Your task to perform on an android device: Open Youtube and go to the subscriptions tab Image 0: 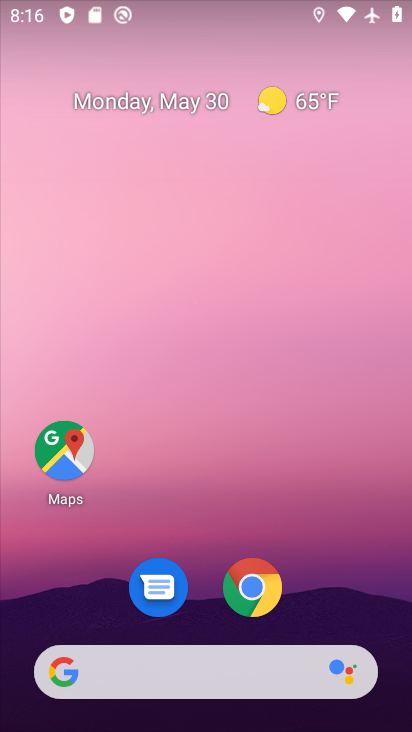
Step 0: press home button
Your task to perform on an android device: Open Youtube and go to the subscriptions tab Image 1: 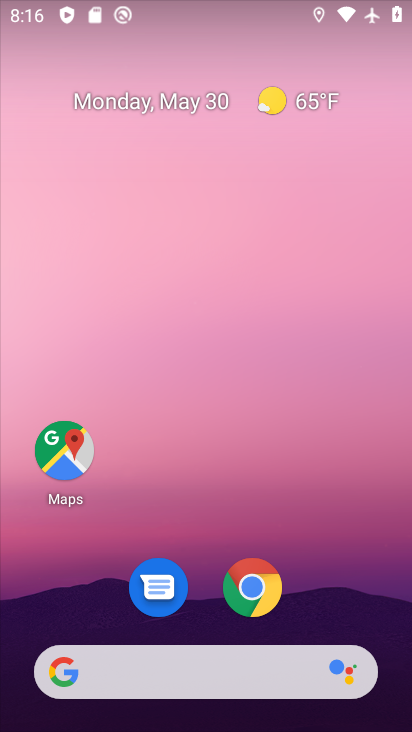
Step 1: drag from (167, 661) to (275, 256)
Your task to perform on an android device: Open Youtube and go to the subscriptions tab Image 2: 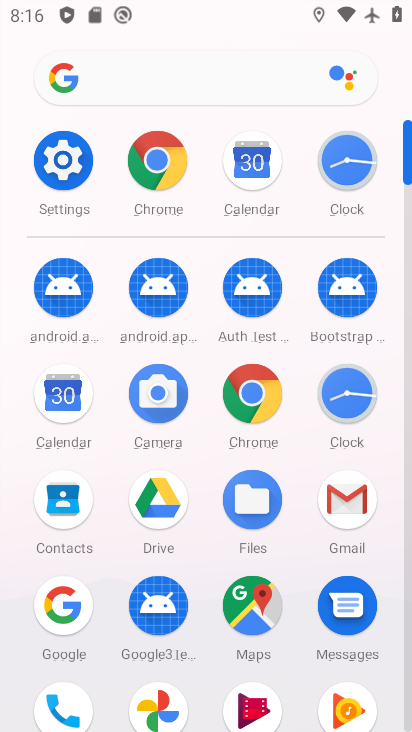
Step 2: drag from (297, 656) to (366, 189)
Your task to perform on an android device: Open Youtube and go to the subscriptions tab Image 3: 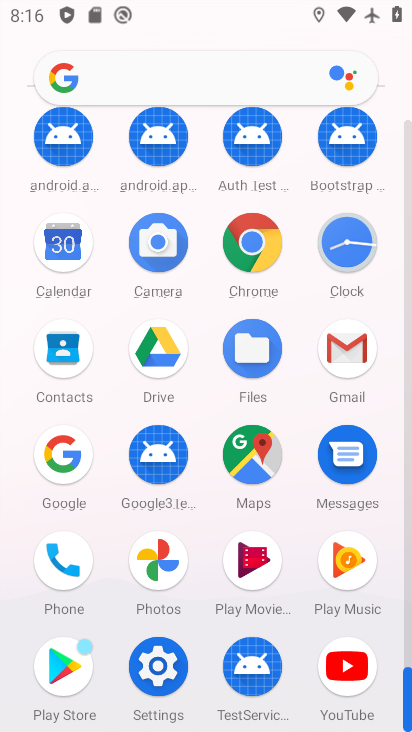
Step 3: click (350, 669)
Your task to perform on an android device: Open Youtube and go to the subscriptions tab Image 4: 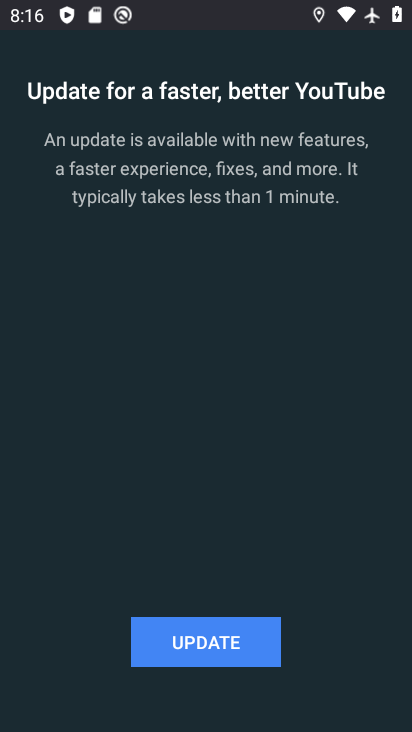
Step 4: click (196, 641)
Your task to perform on an android device: Open Youtube and go to the subscriptions tab Image 5: 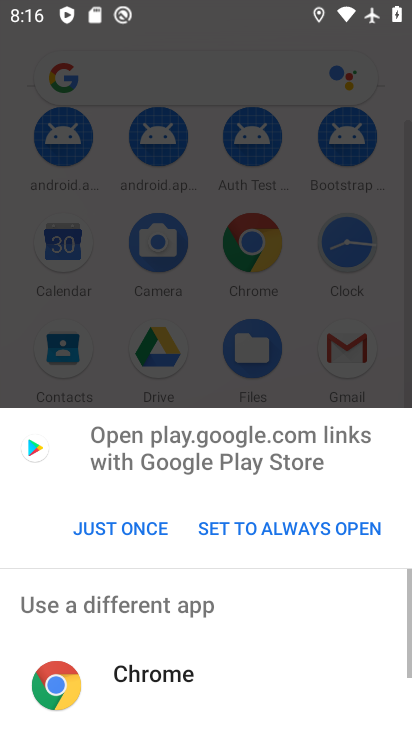
Step 5: drag from (286, 536) to (349, 463)
Your task to perform on an android device: Open Youtube and go to the subscriptions tab Image 6: 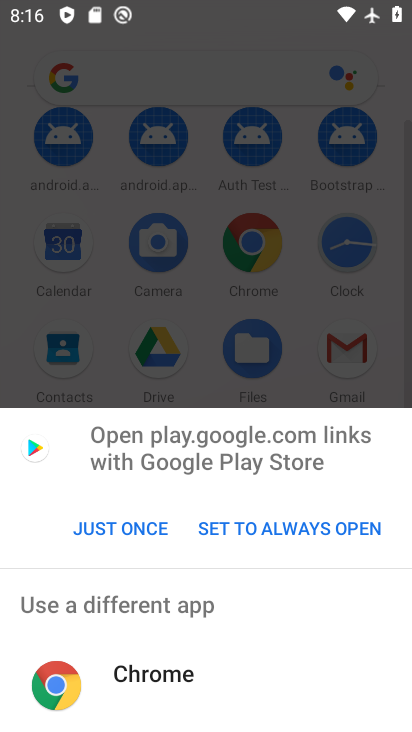
Step 6: click (147, 528)
Your task to perform on an android device: Open Youtube and go to the subscriptions tab Image 7: 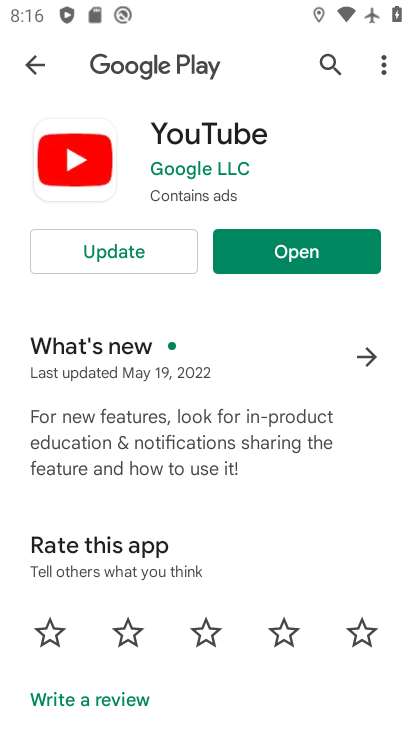
Step 7: click (139, 256)
Your task to perform on an android device: Open Youtube and go to the subscriptions tab Image 8: 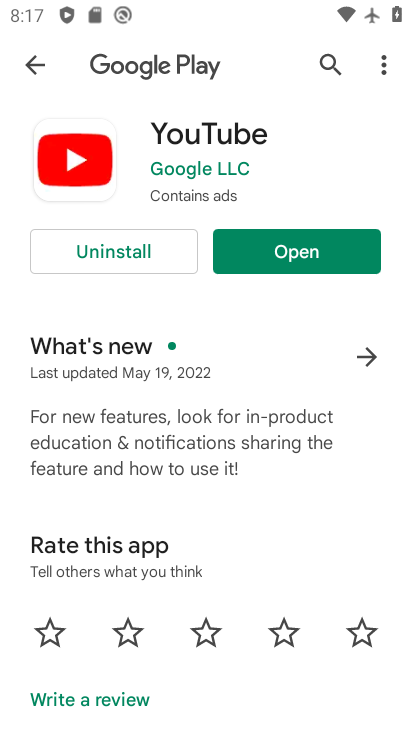
Step 8: click (305, 254)
Your task to perform on an android device: Open Youtube and go to the subscriptions tab Image 9: 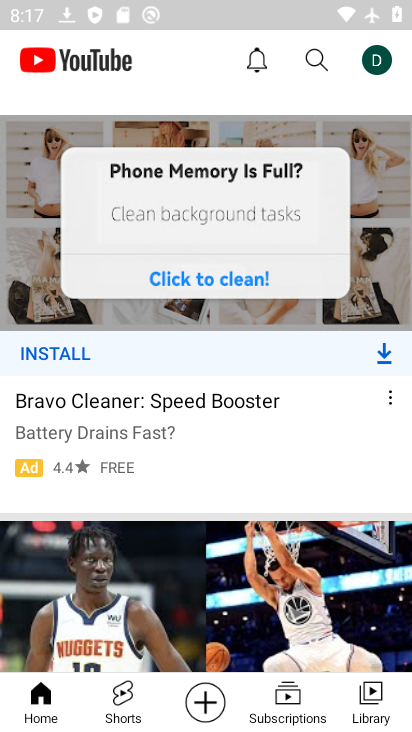
Step 9: click (262, 707)
Your task to perform on an android device: Open Youtube and go to the subscriptions tab Image 10: 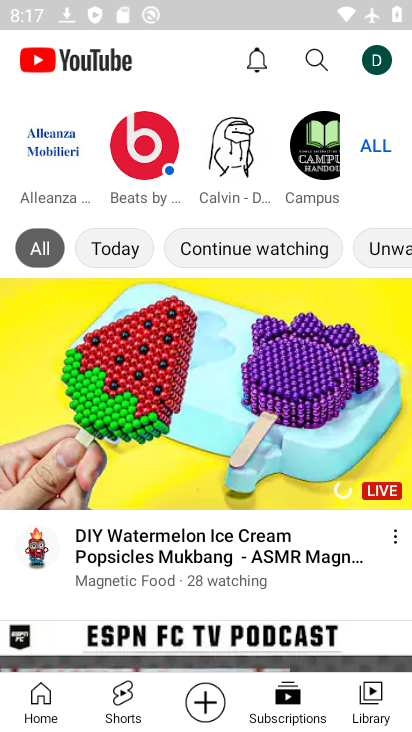
Step 10: task complete